Your task to perform on an android device: all mails in gmail Image 0: 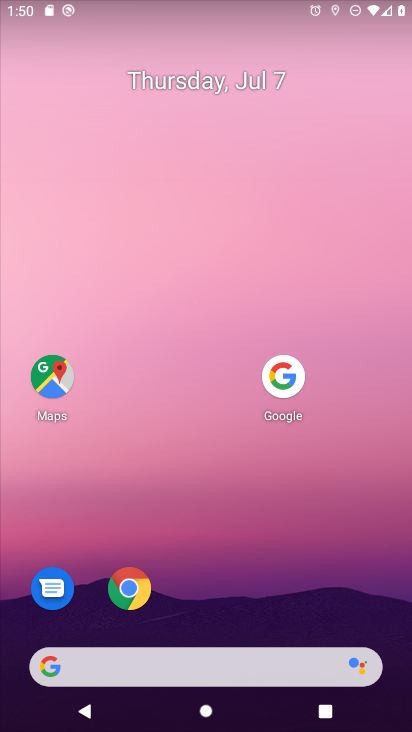
Step 0: drag from (210, 664) to (237, 90)
Your task to perform on an android device: all mails in gmail Image 1: 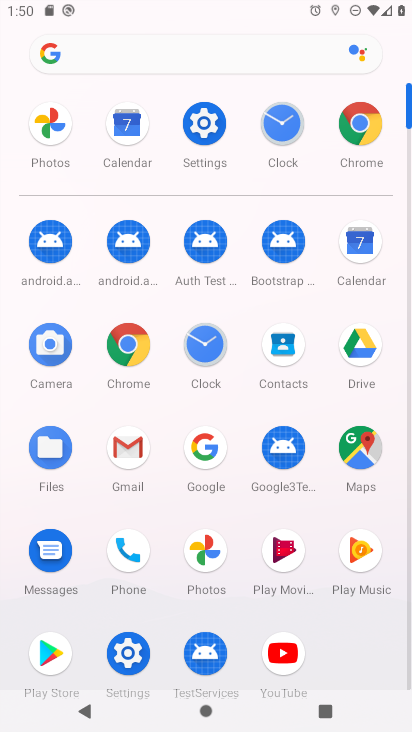
Step 1: click (124, 450)
Your task to perform on an android device: all mails in gmail Image 2: 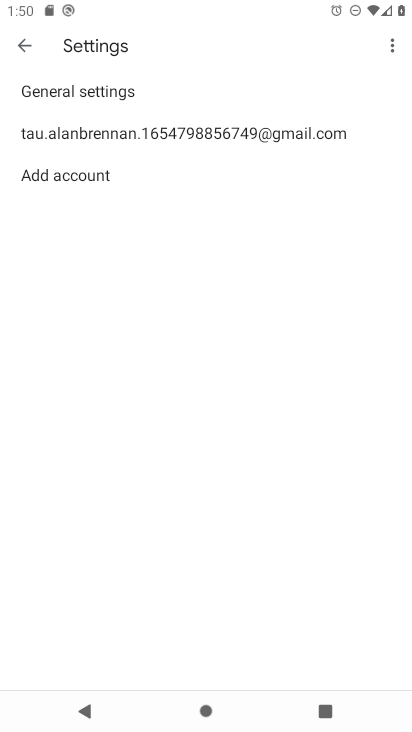
Step 2: click (24, 46)
Your task to perform on an android device: all mails in gmail Image 3: 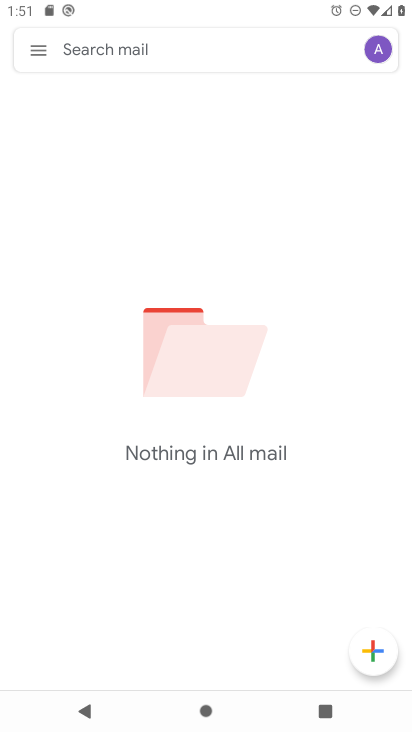
Step 3: task complete